Your task to perform on an android device: turn on improve location accuracy Image 0: 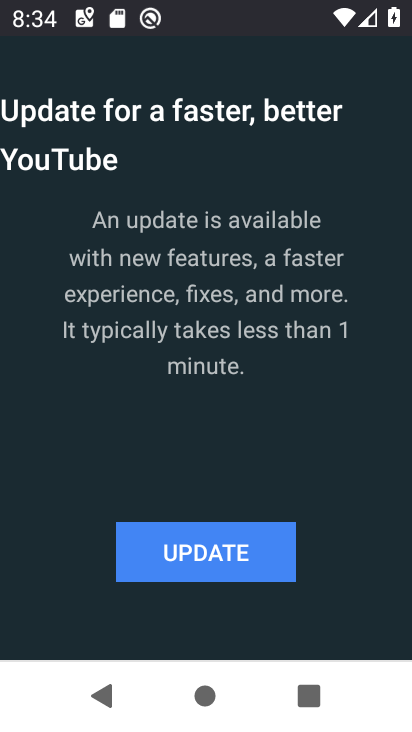
Step 0: press home button
Your task to perform on an android device: turn on improve location accuracy Image 1: 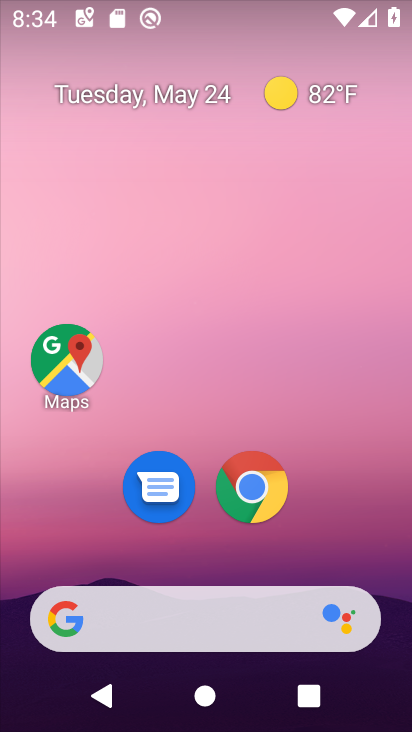
Step 1: drag from (316, 530) to (361, 132)
Your task to perform on an android device: turn on improve location accuracy Image 2: 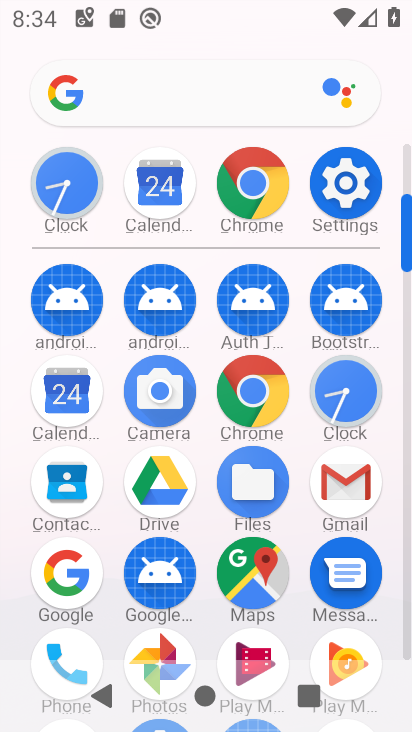
Step 2: click (355, 202)
Your task to perform on an android device: turn on improve location accuracy Image 3: 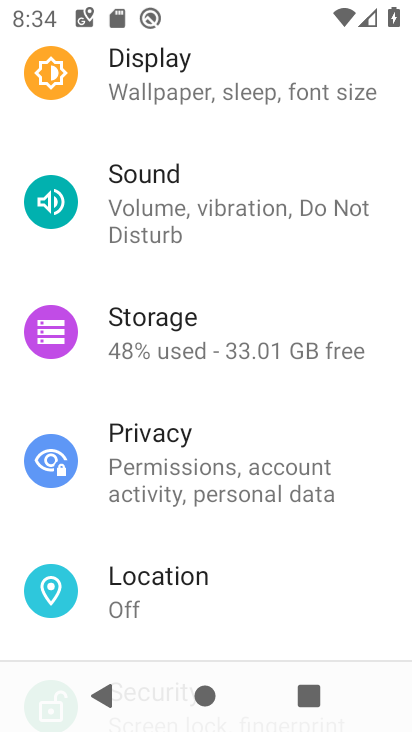
Step 3: drag from (263, 206) to (271, 569)
Your task to perform on an android device: turn on improve location accuracy Image 4: 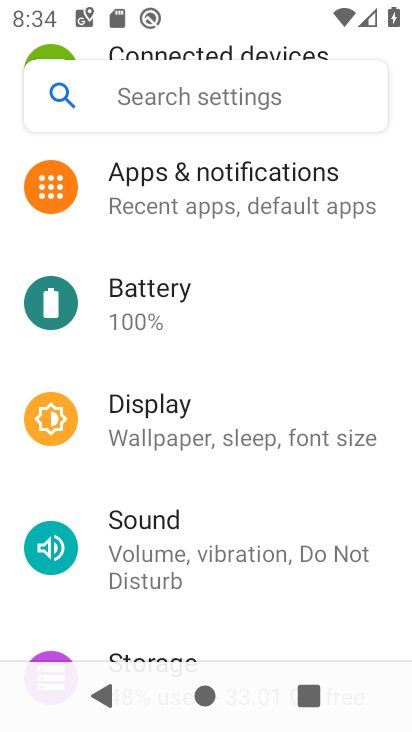
Step 4: drag from (273, 564) to (290, 263)
Your task to perform on an android device: turn on improve location accuracy Image 5: 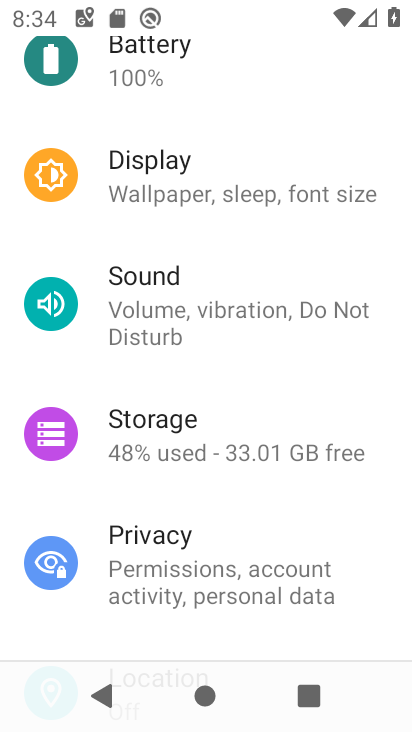
Step 5: drag from (276, 488) to (292, 201)
Your task to perform on an android device: turn on improve location accuracy Image 6: 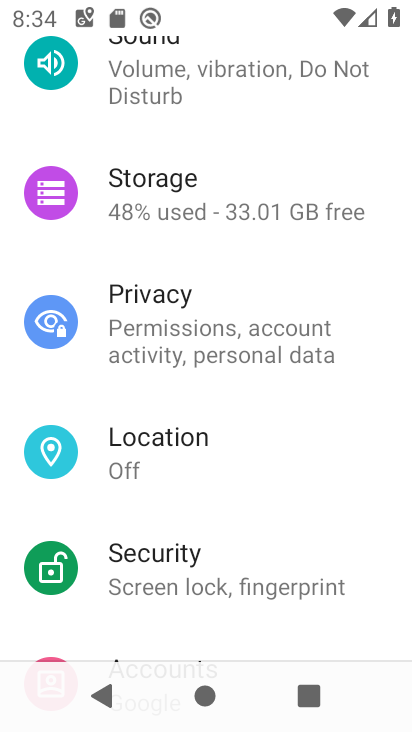
Step 6: click (233, 457)
Your task to perform on an android device: turn on improve location accuracy Image 7: 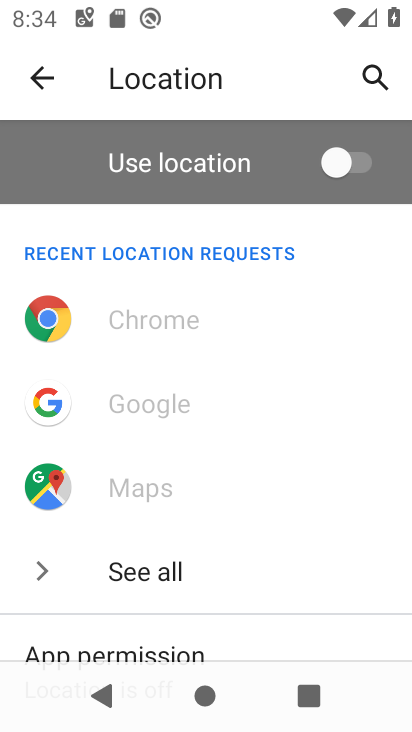
Step 7: drag from (257, 595) to (267, 249)
Your task to perform on an android device: turn on improve location accuracy Image 8: 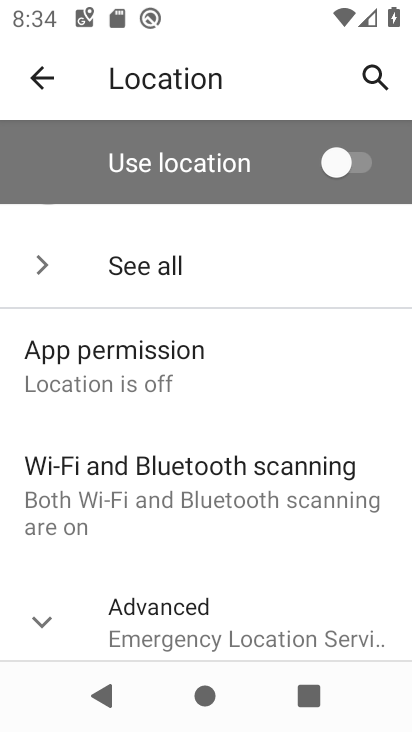
Step 8: drag from (290, 536) to (280, 297)
Your task to perform on an android device: turn on improve location accuracy Image 9: 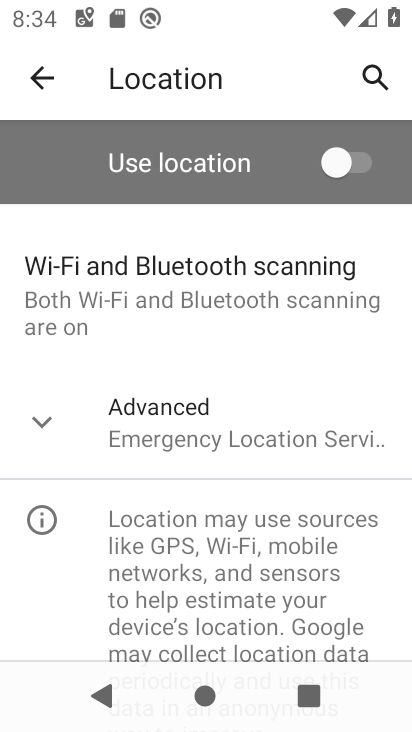
Step 9: click (277, 421)
Your task to perform on an android device: turn on improve location accuracy Image 10: 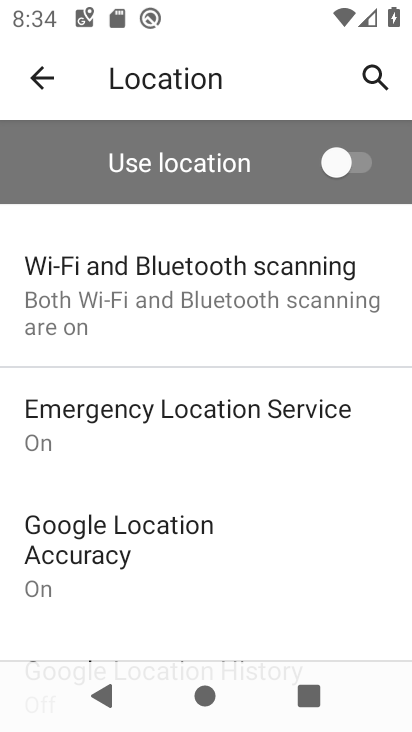
Step 10: drag from (279, 549) to (236, 305)
Your task to perform on an android device: turn on improve location accuracy Image 11: 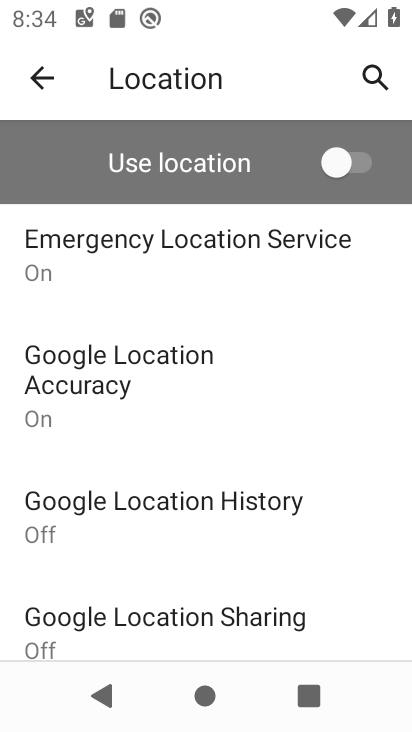
Step 11: click (160, 365)
Your task to perform on an android device: turn on improve location accuracy Image 12: 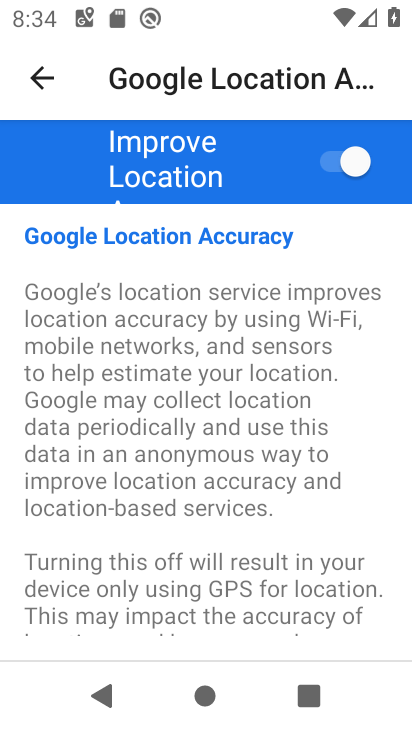
Step 12: task complete